Your task to perform on an android device: Go to Google maps Image 0: 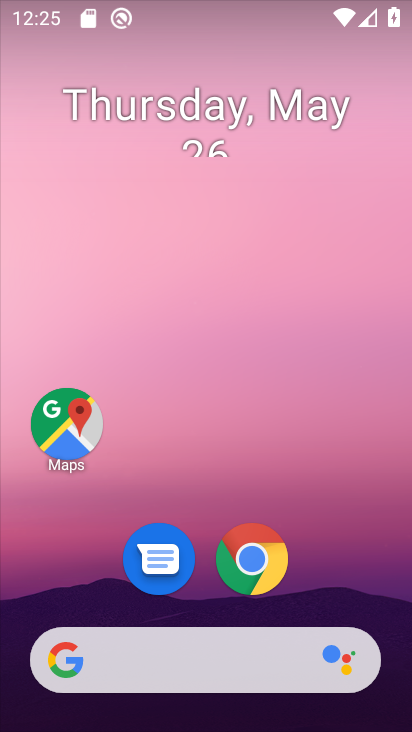
Step 0: press home button
Your task to perform on an android device: Go to Google maps Image 1: 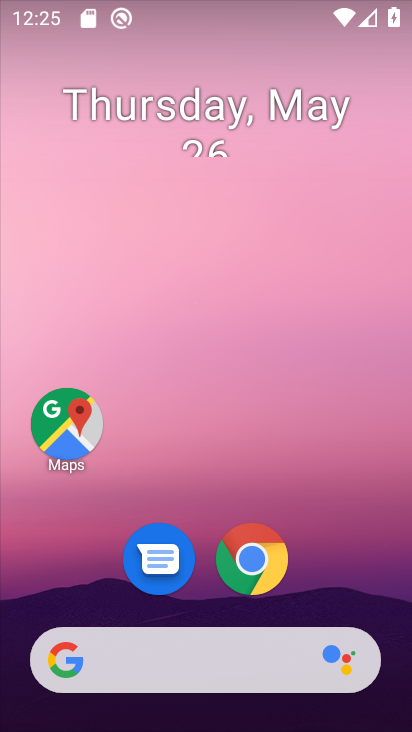
Step 1: click (67, 430)
Your task to perform on an android device: Go to Google maps Image 2: 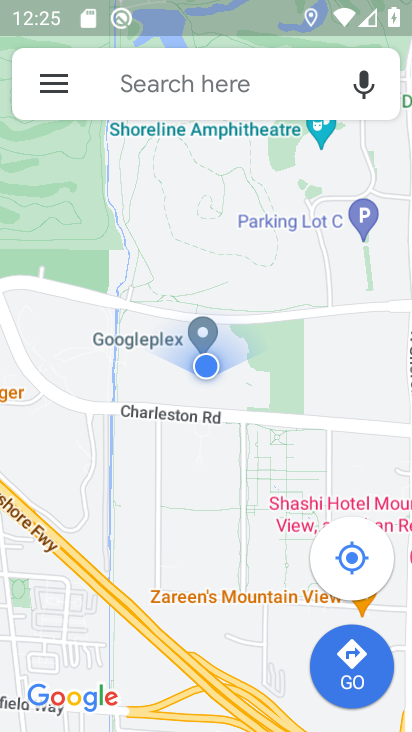
Step 2: task complete